Your task to perform on an android device: What's the weather going to be this weekend? Image 0: 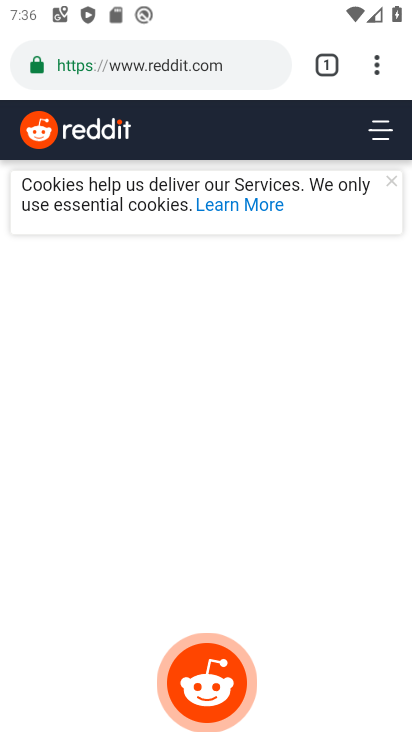
Step 0: press home button
Your task to perform on an android device: What's the weather going to be this weekend? Image 1: 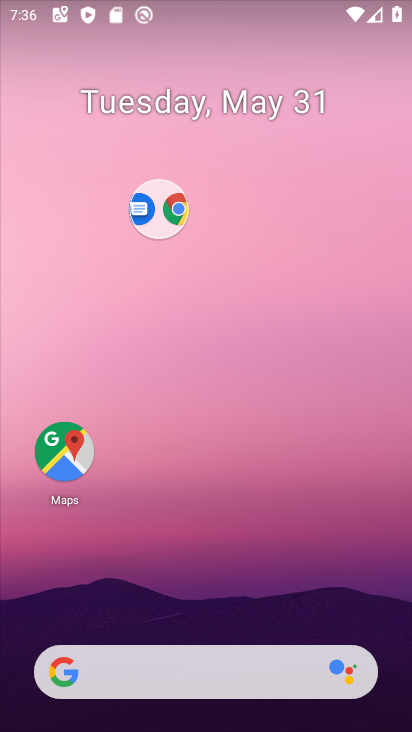
Step 1: drag from (191, 624) to (207, 300)
Your task to perform on an android device: What's the weather going to be this weekend? Image 2: 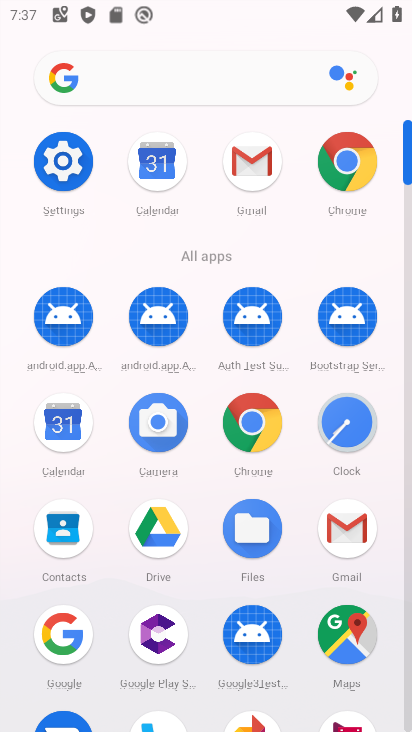
Step 2: click (50, 639)
Your task to perform on an android device: What's the weather going to be this weekend? Image 3: 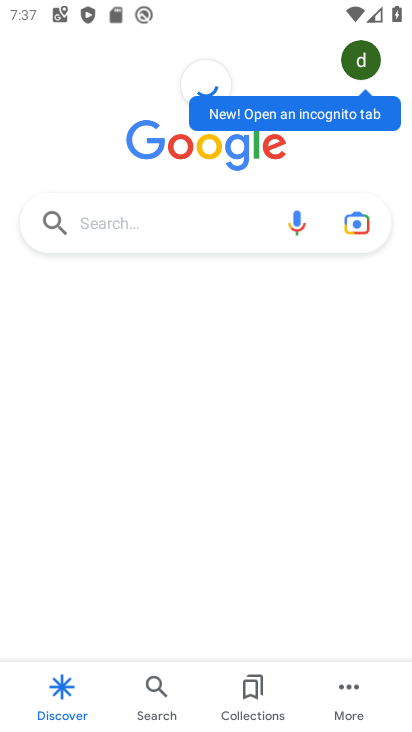
Step 3: click (159, 221)
Your task to perform on an android device: What's the weather going to be this weekend? Image 4: 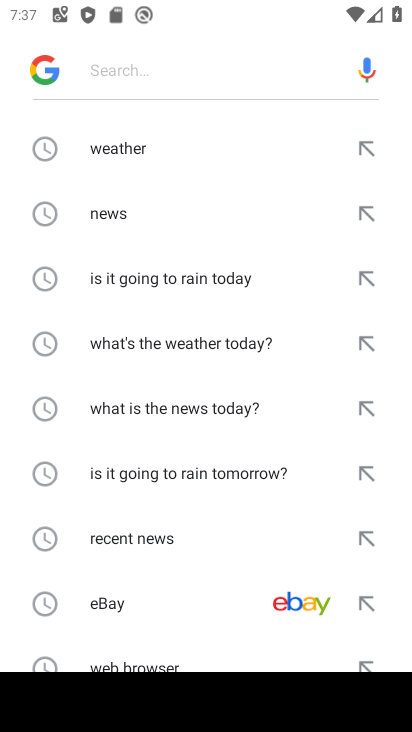
Step 4: click (94, 159)
Your task to perform on an android device: What's the weather going to be this weekend? Image 5: 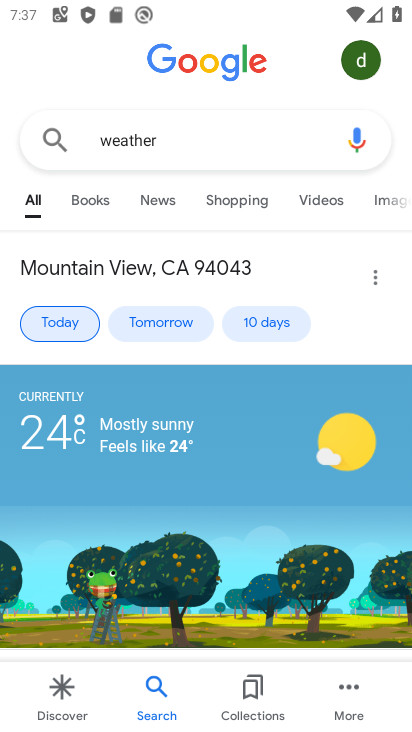
Step 5: click (249, 335)
Your task to perform on an android device: What's the weather going to be this weekend? Image 6: 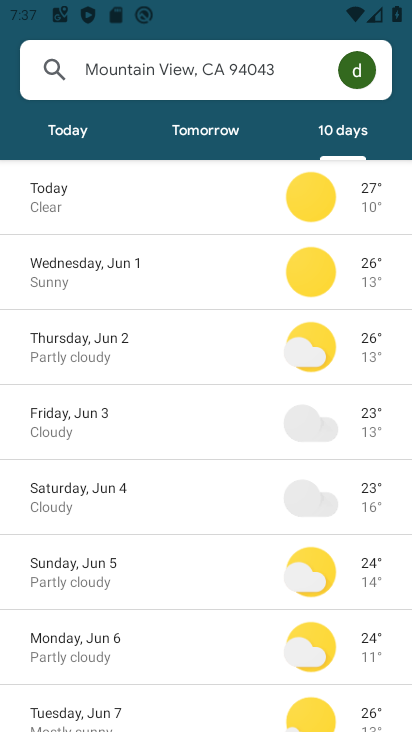
Step 6: task complete